Your task to perform on an android device: set an alarm Image 0: 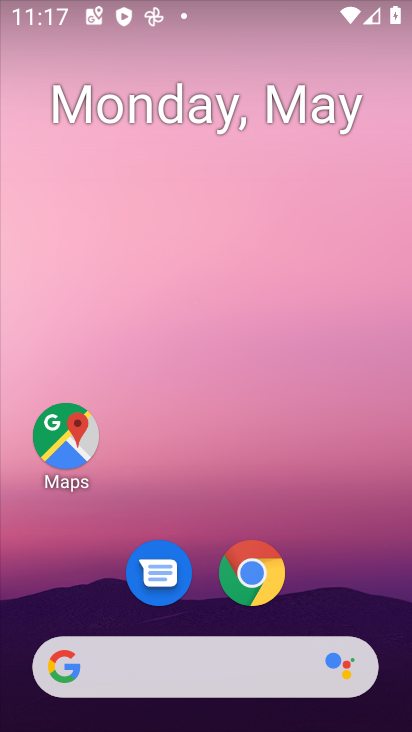
Step 0: drag from (364, 580) to (269, 48)
Your task to perform on an android device: set an alarm Image 1: 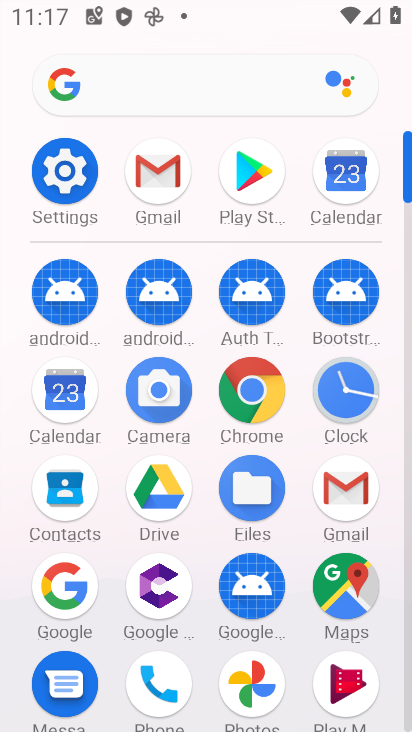
Step 1: click (346, 384)
Your task to perform on an android device: set an alarm Image 2: 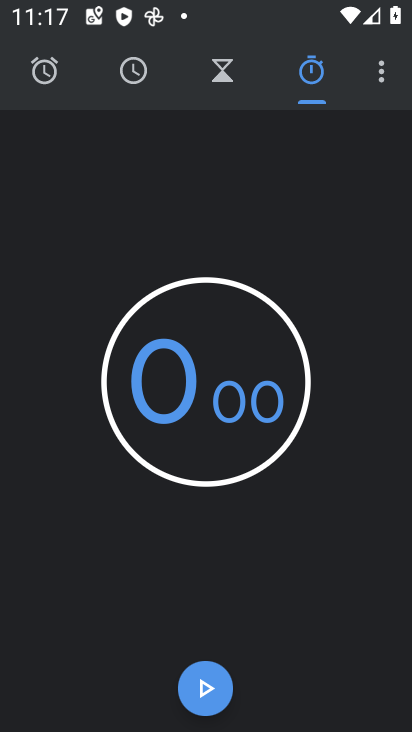
Step 2: click (50, 74)
Your task to perform on an android device: set an alarm Image 3: 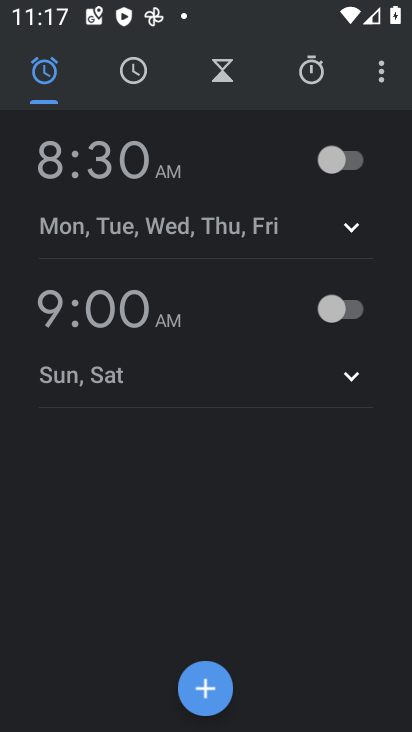
Step 3: click (333, 173)
Your task to perform on an android device: set an alarm Image 4: 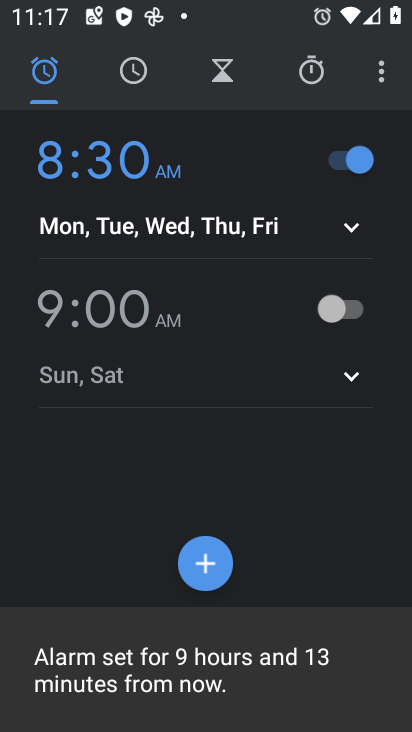
Step 4: task complete